Your task to perform on an android device: turn on airplane mode Image 0: 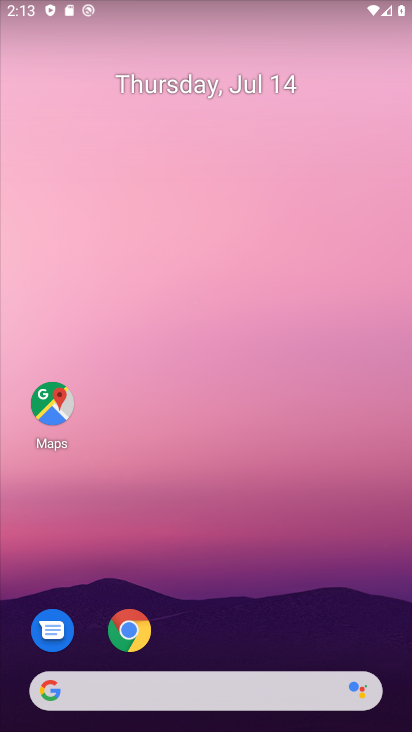
Step 0: press home button
Your task to perform on an android device: turn on airplane mode Image 1: 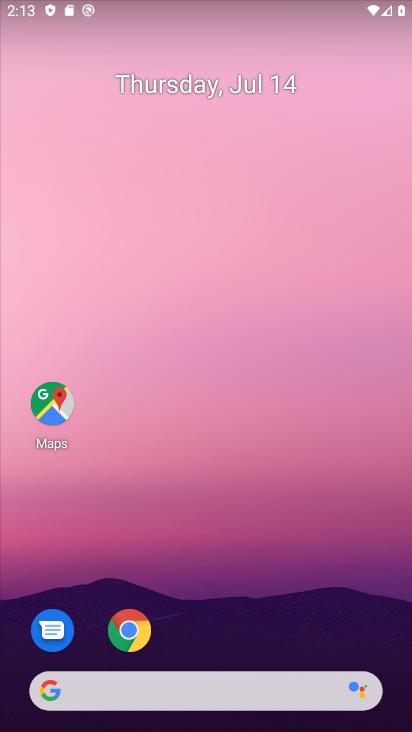
Step 1: press home button
Your task to perform on an android device: turn on airplane mode Image 2: 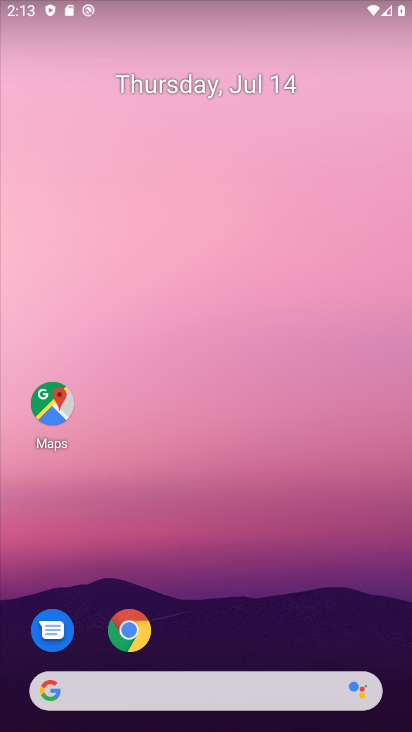
Step 2: drag from (225, 8) to (239, 538)
Your task to perform on an android device: turn on airplane mode Image 3: 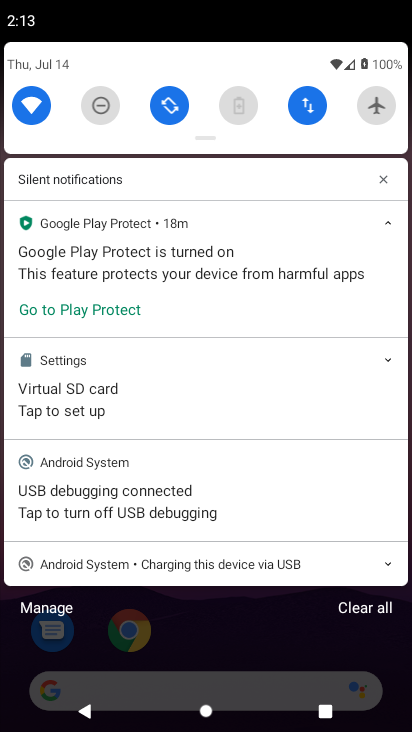
Step 3: click (387, 99)
Your task to perform on an android device: turn on airplane mode Image 4: 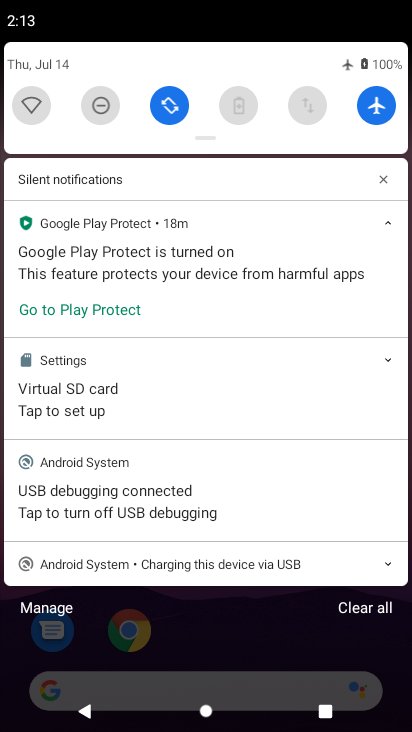
Step 4: task complete